Your task to perform on an android device: check battery use Image 0: 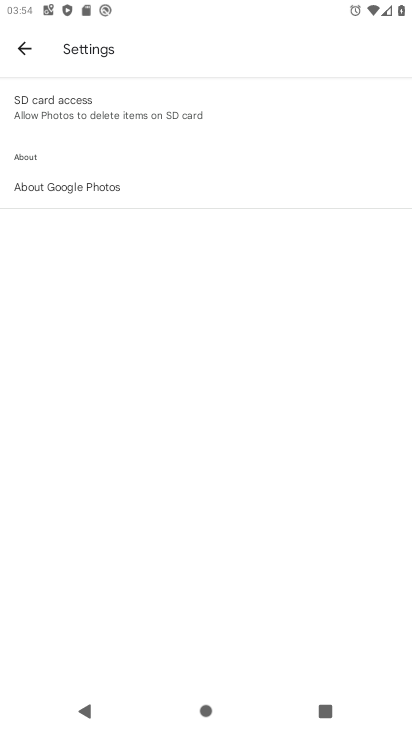
Step 0: press home button
Your task to perform on an android device: check battery use Image 1: 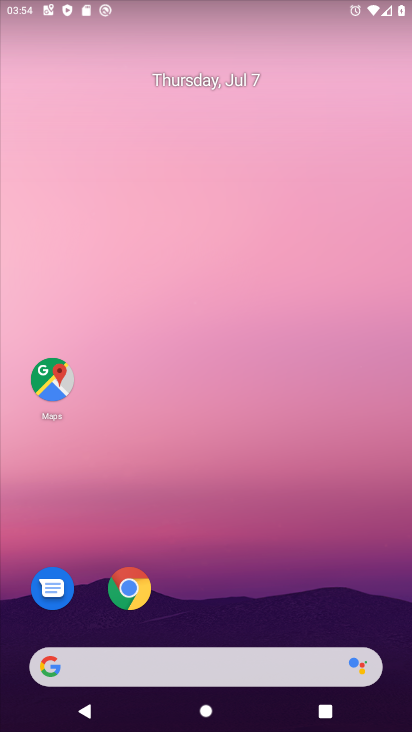
Step 1: drag from (135, 654) to (338, 149)
Your task to perform on an android device: check battery use Image 2: 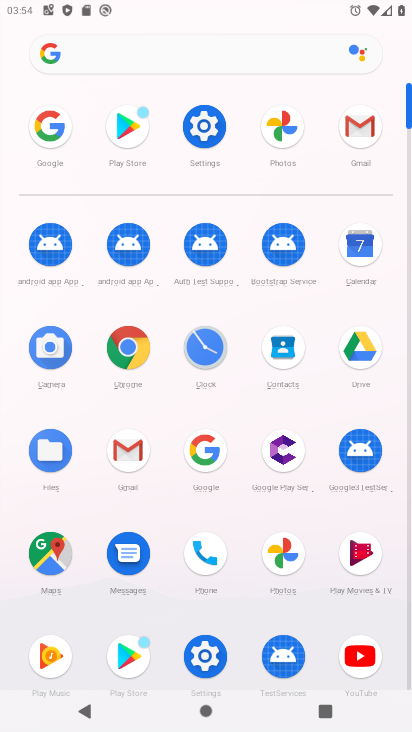
Step 2: click (201, 128)
Your task to perform on an android device: check battery use Image 3: 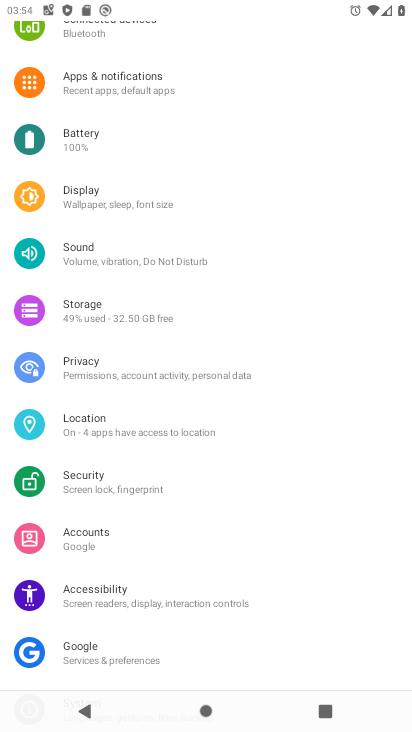
Step 3: click (75, 126)
Your task to perform on an android device: check battery use Image 4: 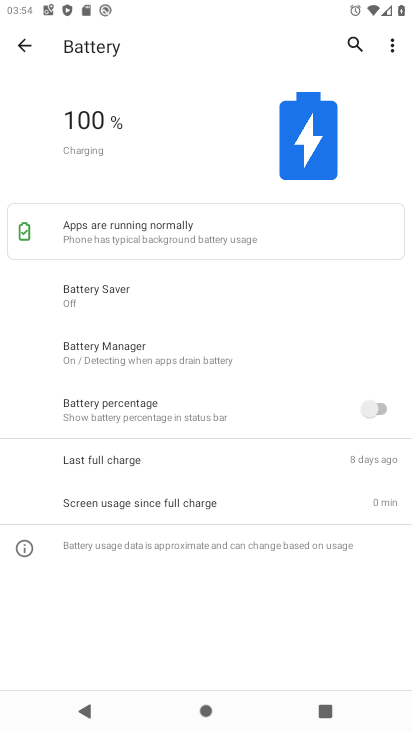
Step 4: click (393, 39)
Your task to perform on an android device: check battery use Image 5: 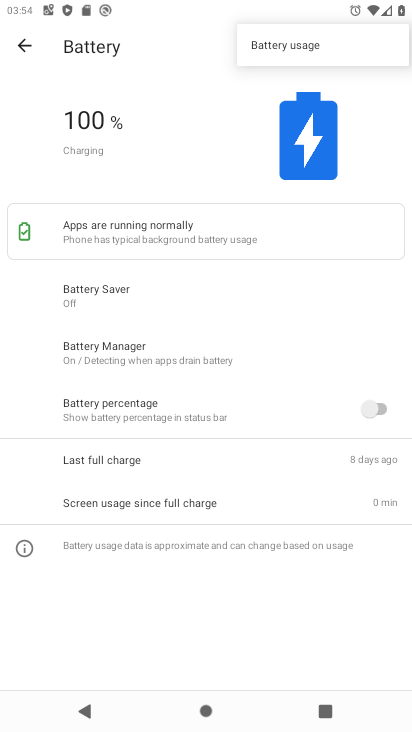
Step 5: click (289, 49)
Your task to perform on an android device: check battery use Image 6: 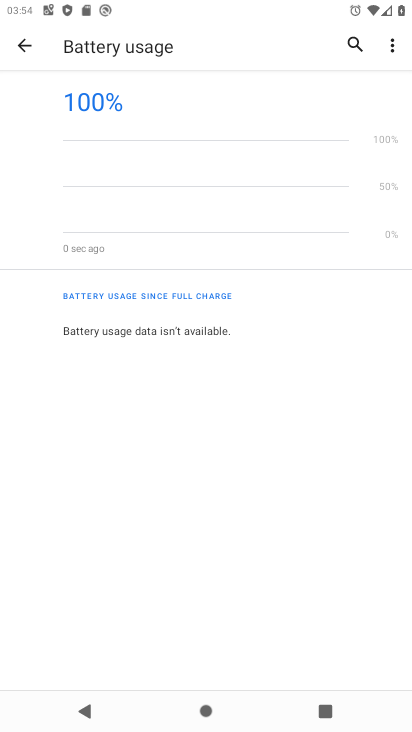
Step 6: task complete